Your task to perform on an android device: Open my contact list Image 0: 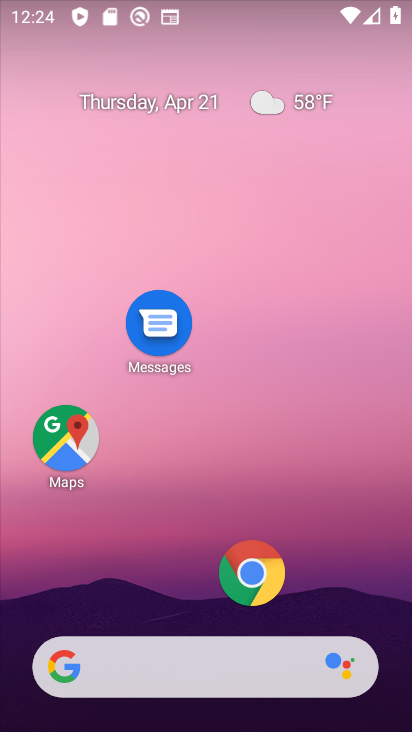
Step 0: drag from (148, 206) to (405, 453)
Your task to perform on an android device: Open my contact list Image 1: 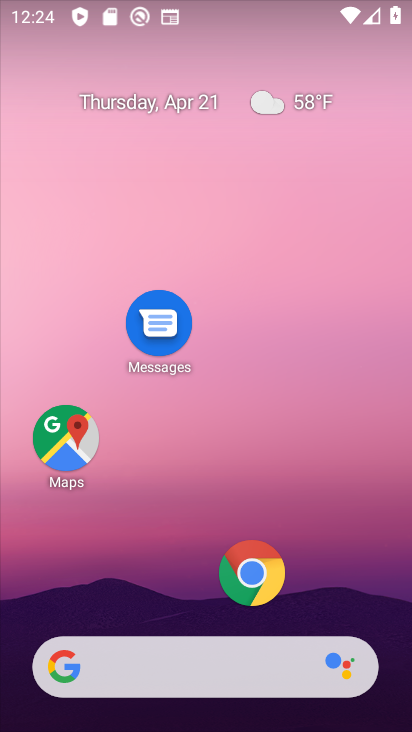
Step 1: drag from (165, 590) to (255, 62)
Your task to perform on an android device: Open my contact list Image 2: 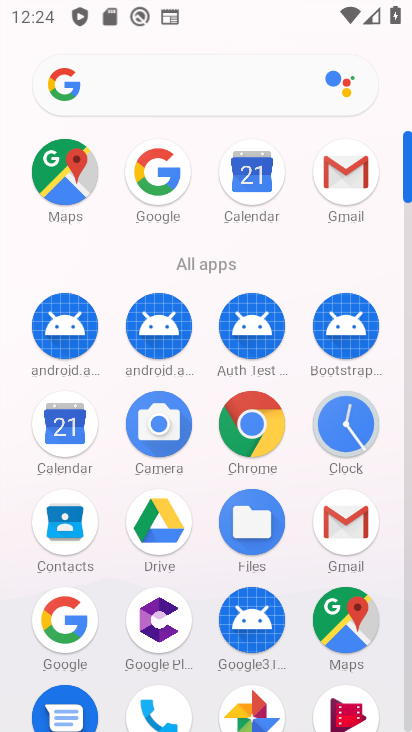
Step 2: click (67, 519)
Your task to perform on an android device: Open my contact list Image 3: 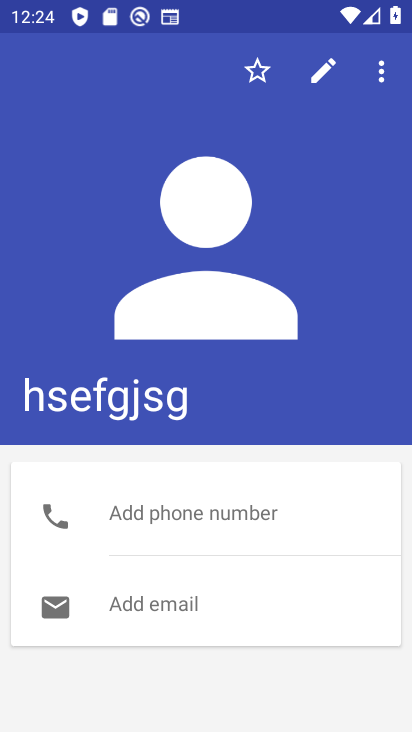
Step 3: task complete